Your task to perform on an android device: manage bookmarks in the chrome app Image 0: 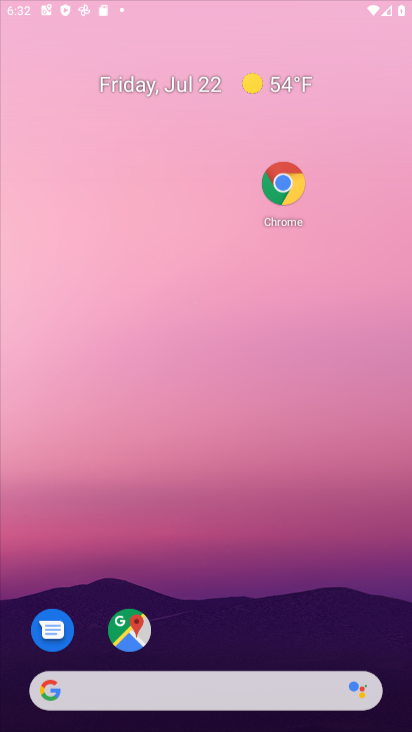
Step 0: click (211, 134)
Your task to perform on an android device: manage bookmarks in the chrome app Image 1: 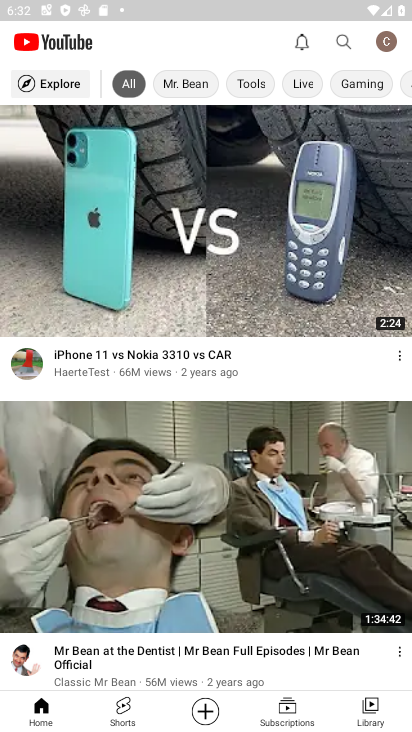
Step 1: press home button
Your task to perform on an android device: manage bookmarks in the chrome app Image 2: 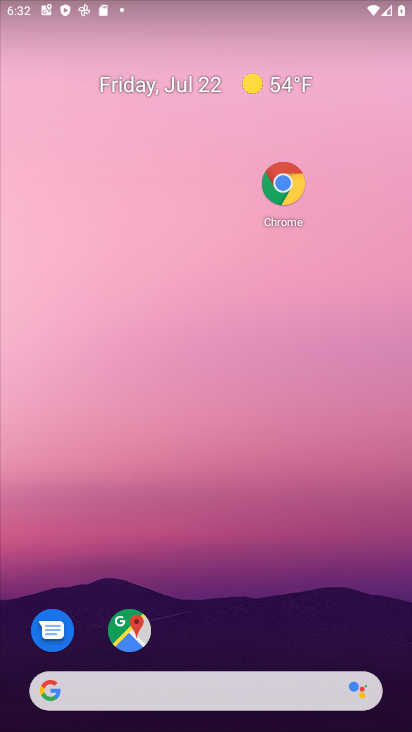
Step 2: drag from (197, 613) to (196, 29)
Your task to perform on an android device: manage bookmarks in the chrome app Image 3: 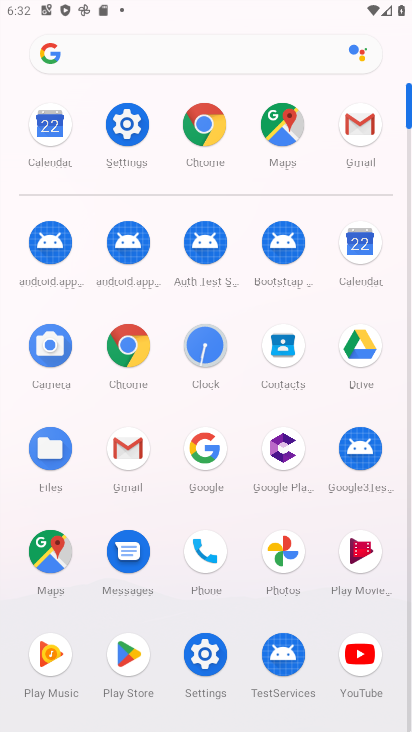
Step 3: click (276, 365)
Your task to perform on an android device: manage bookmarks in the chrome app Image 4: 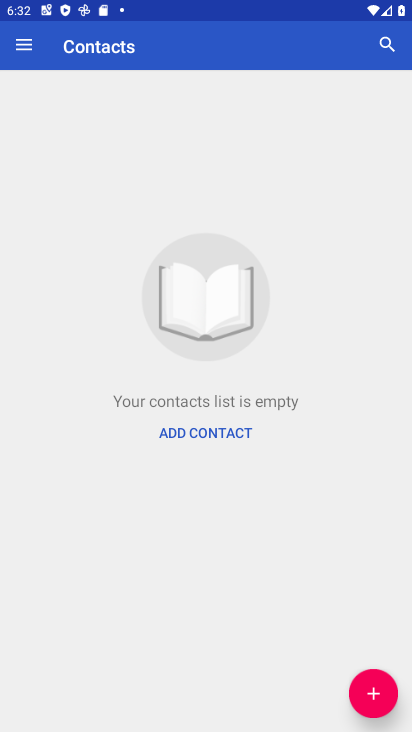
Step 4: click (393, 680)
Your task to perform on an android device: manage bookmarks in the chrome app Image 5: 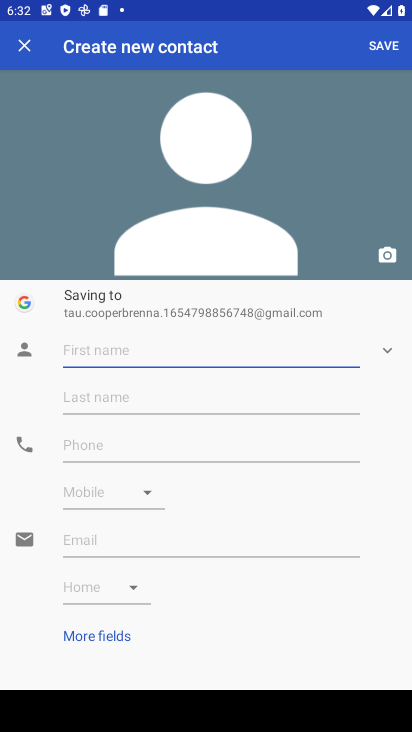
Step 5: type "Nishi"
Your task to perform on an android device: manage bookmarks in the chrome app Image 6: 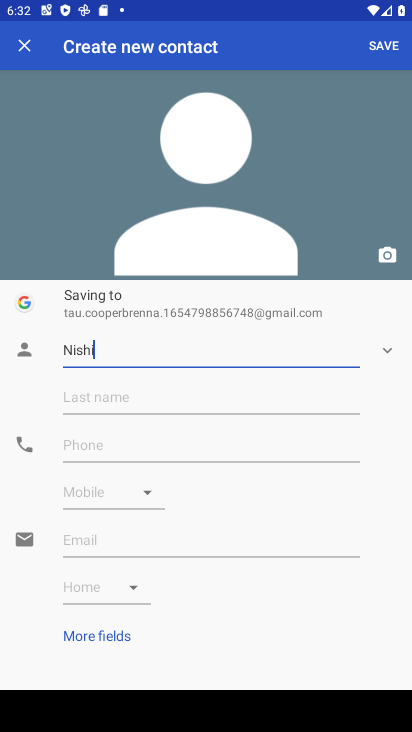
Step 6: click (82, 443)
Your task to perform on an android device: manage bookmarks in the chrome app Image 7: 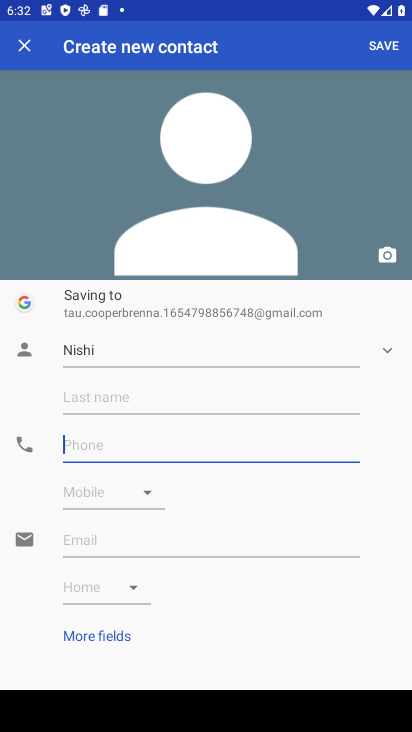
Step 7: type "8678980099"
Your task to perform on an android device: manage bookmarks in the chrome app Image 8: 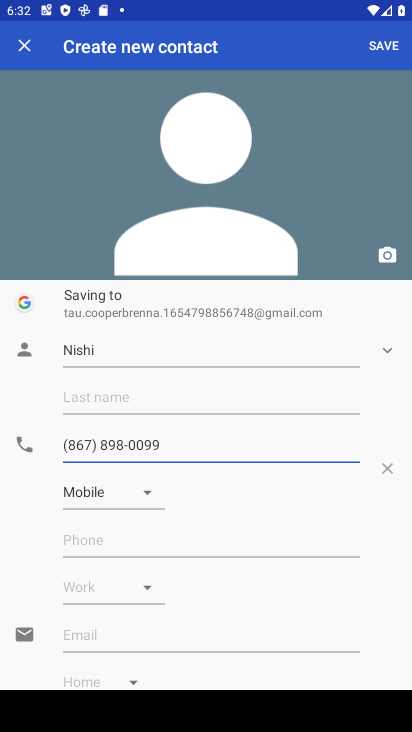
Step 8: click (375, 44)
Your task to perform on an android device: manage bookmarks in the chrome app Image 9: 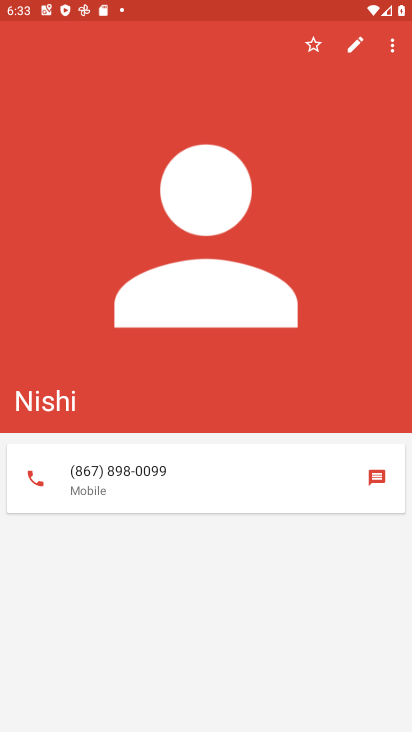
Step 9: task complete